Your task to perform on an android device: turn off location Image 0: 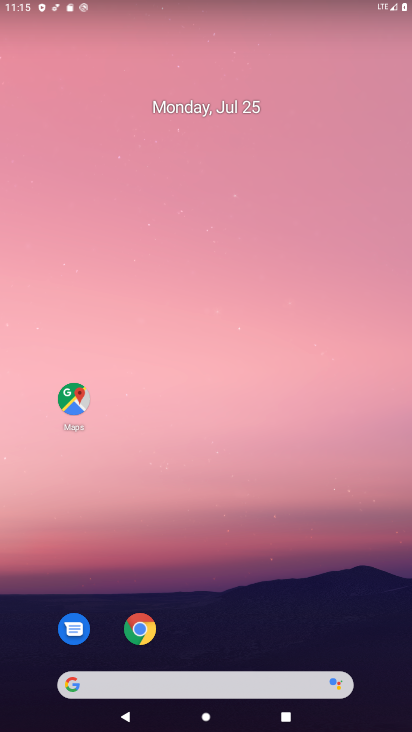
Step 0: click (195, 86)
Your task to perform on an android device: turn off location Image 1: 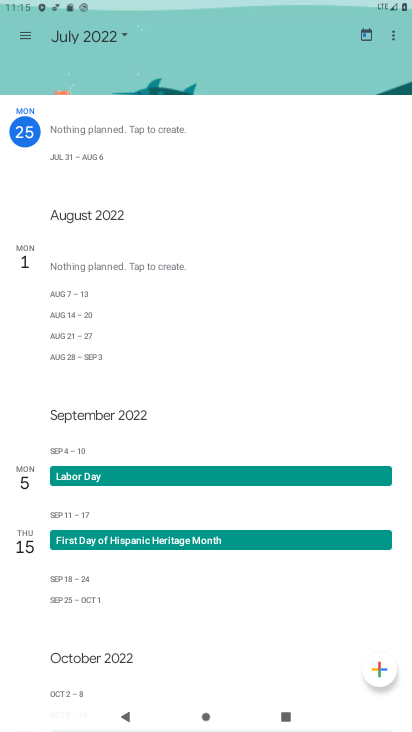
Step 1: press home button
Your task to perform on an android device: turn off location Image 2: 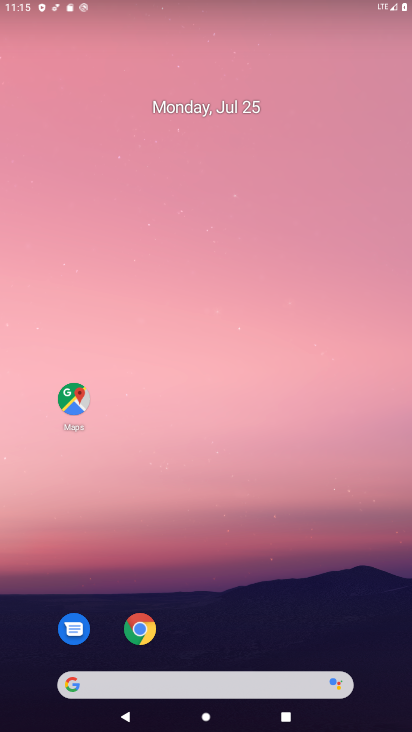
Step 2: drag from (227, 636) to (247, 187)
Your task to perform on an android device: turn off location Image 3: 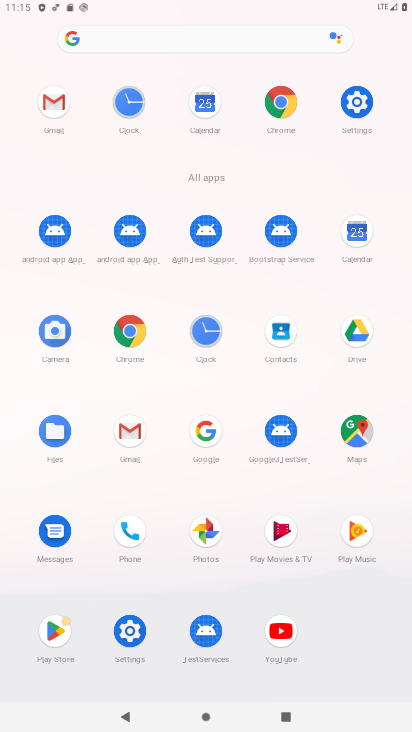
Step 3: click (371, 107)
Your task to perform on an android device: turn off location Image 4: 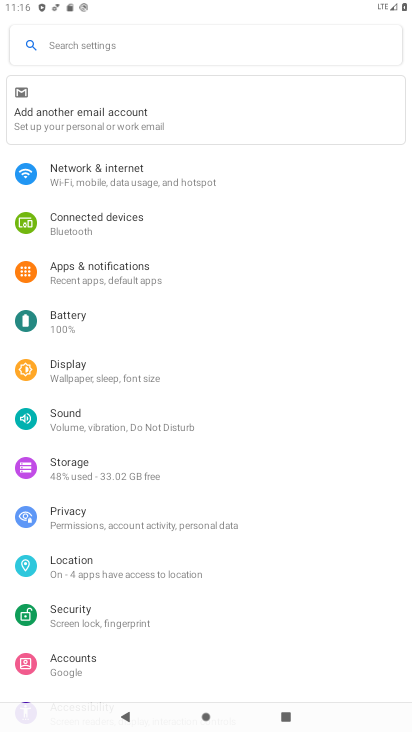
Step 4: click (125, 557)
Your task to perform on an android device: turn off location Image 5: 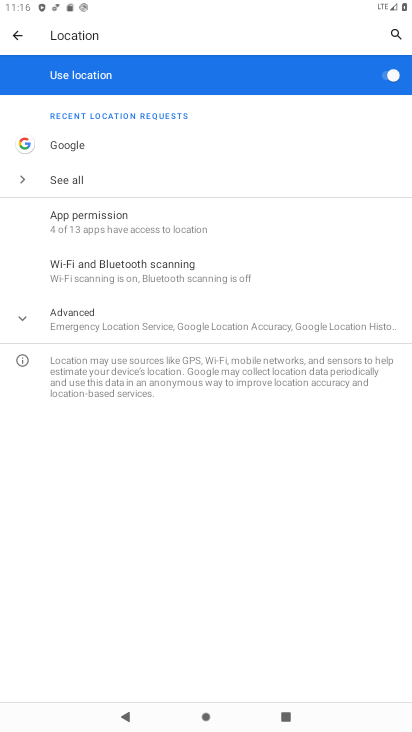
Step 5: click (384, 73)
Your task to perform on an android device: turn off location Image 6: 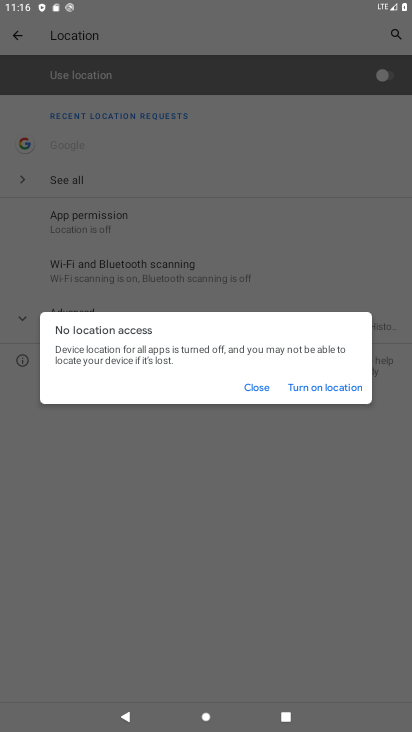
Step 6: task complete